Your task to perform on an android device: turn on sleep mode Image 0: 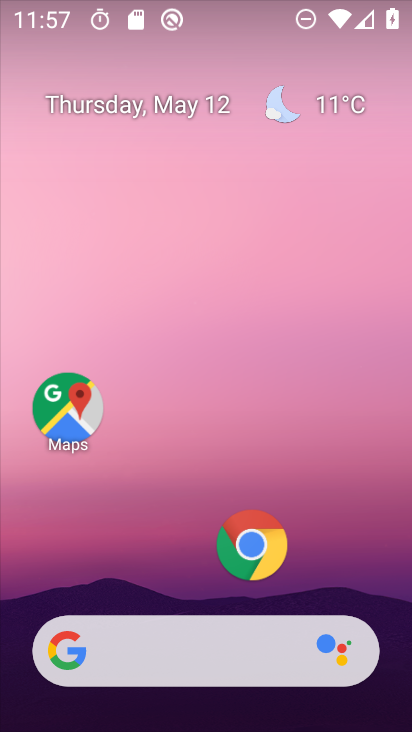
Step 0: drag from (197, 603) to (186, 136)
Your task to perform on an android device: turn on sleep mode Image 1: 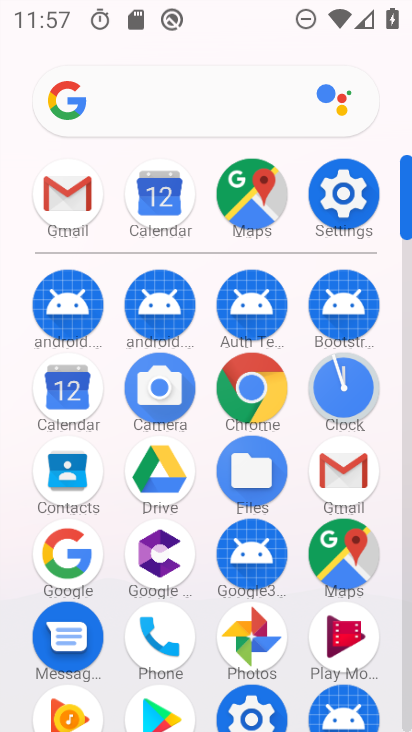
Step 1: click (341, 190)
Your task to perform on an android device: turn on sleep mode Image 2: 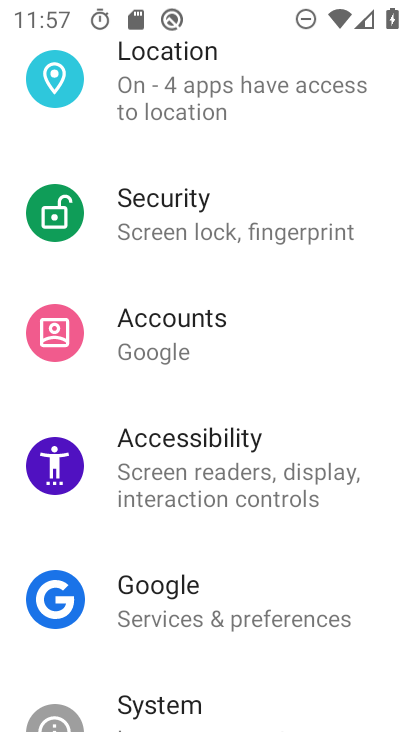
Step 2: drag from (206, 135) to (227, 714)
Your task to perform on an android device: turn on sleep mode Image 3: 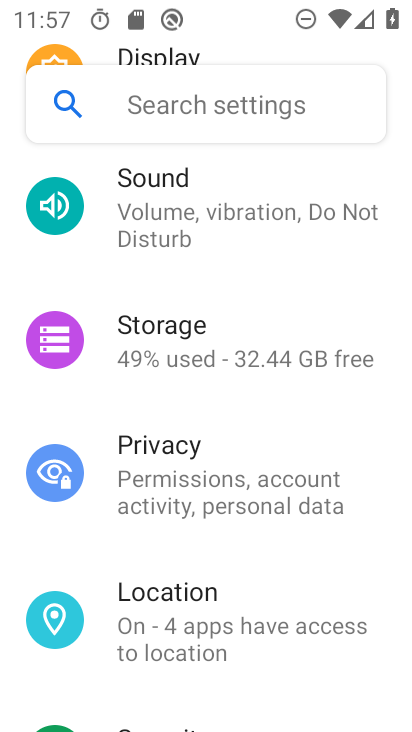
Step 3: drag from (212, 190) to (229, 651)
Your task to perform on an android device: turn on sleep mode Image 4: 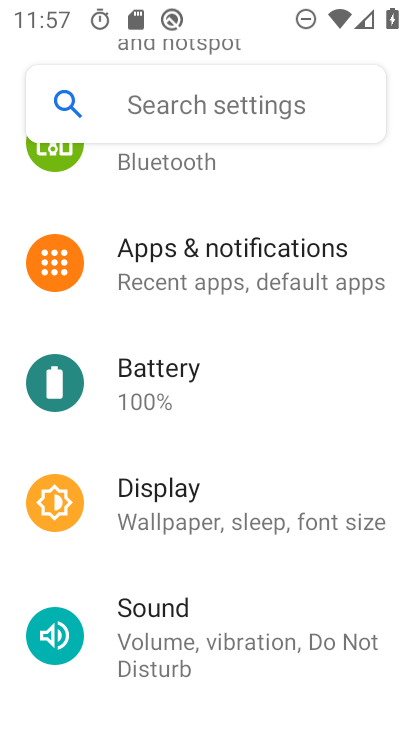
Step 4: click (219, 489)
Your task to perform on an android device: turn on sleep mode Image 5: 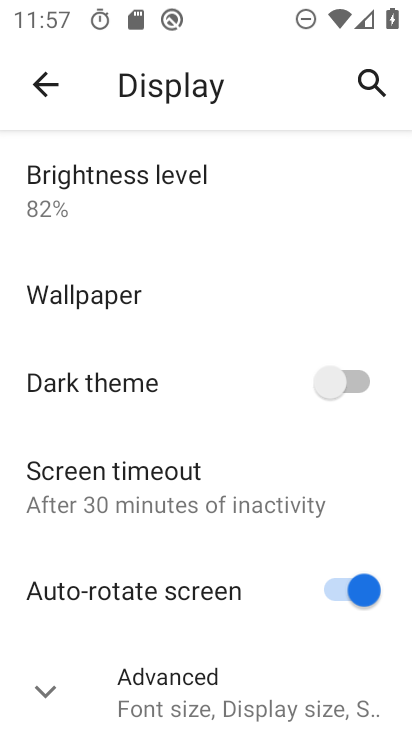
Step 5: click (46, 690)
Your task to perform on an android device: turn on sleep mode Image 6: 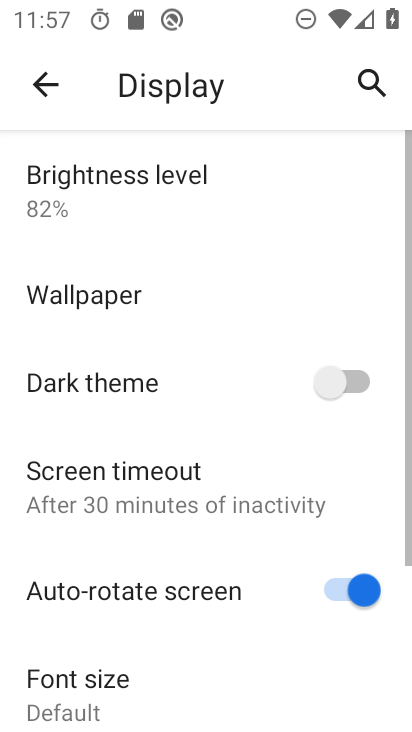
Step 6: task complete